Your task to perform on an android device: open sync settings in chrome Image 0: 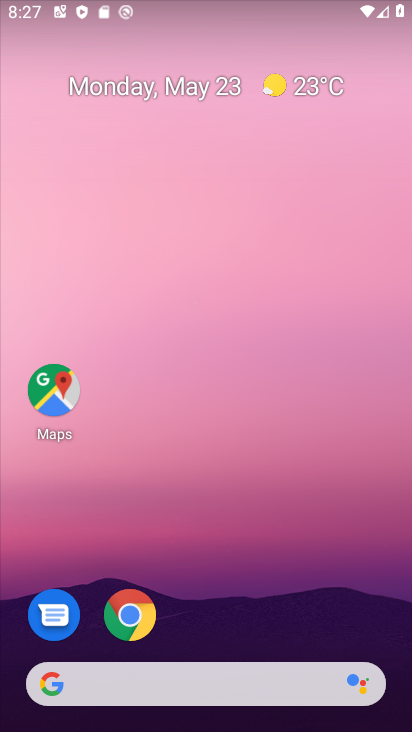
Step 0: click (130, 613)
Your task to perform on an android device: open sync settings in chrome Image 1: 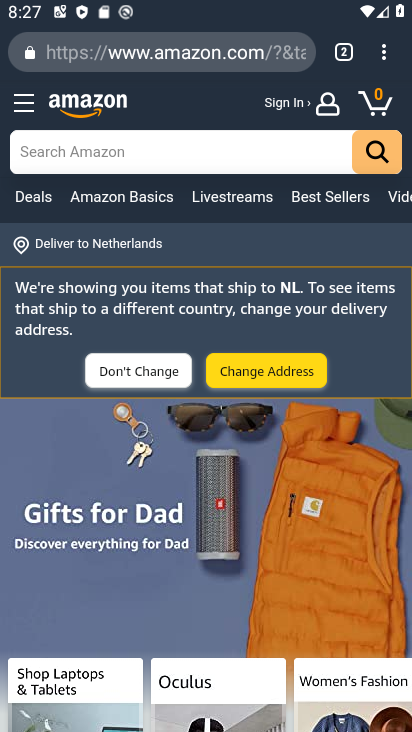
Step 1: click (385, 52)
Your task to perform on an android device: open sync settings in chrome Image 2: 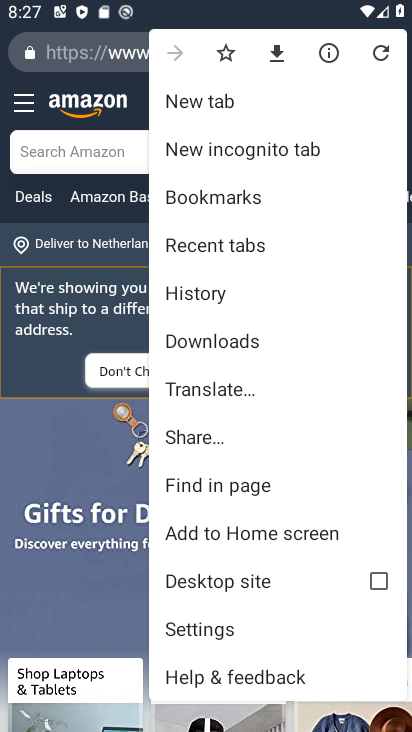
Step 2: click (206, 635)
Your task to perform on an android device: open sync settings in chrome Image 3: 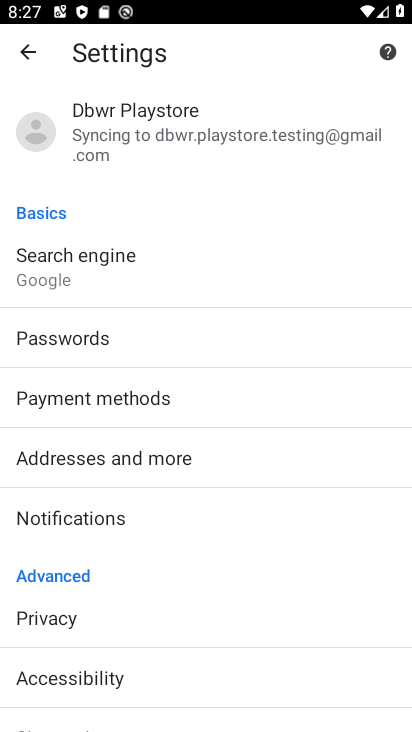
Step 3: drag from (154, 591) to (207, 470)
Your task to perform on an android device: open sync settings in chrome Image 4: 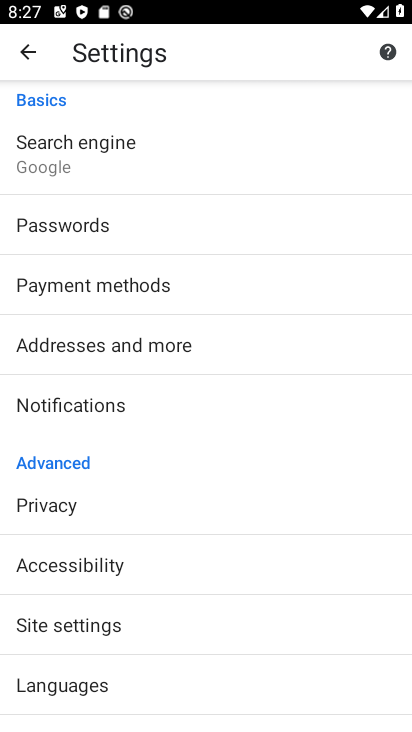
Step 4: drag from (119, 599) to (172, 519)
Your task to perform on an android device: open sync settings in chrome Image 5: 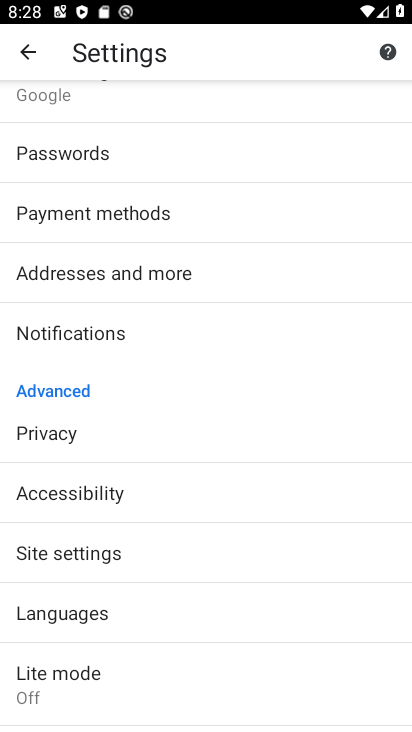
Step 5: click (98, 553)
Your task to perform on an android device: open sync settings in chrome Image 6: 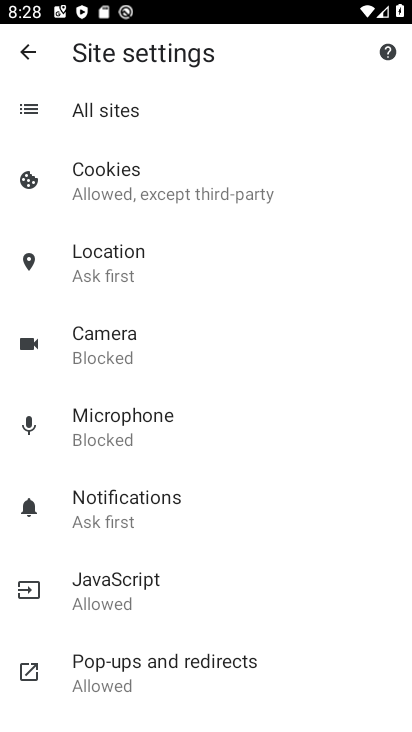
Step 6: drag from (164, 613) to (210, 546)
Your task to perform on an android device: open sync settings in chrome Image 7: 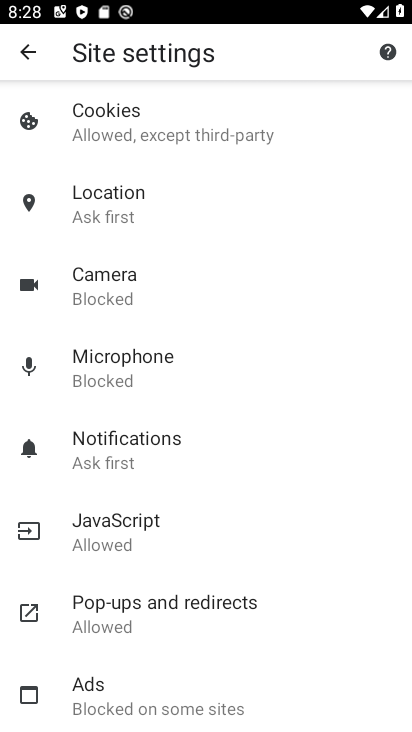
Step 7: drag from (150, 635) to (198, 551)
Your task to perform on an android device: open sync settings in chrome Image 8: 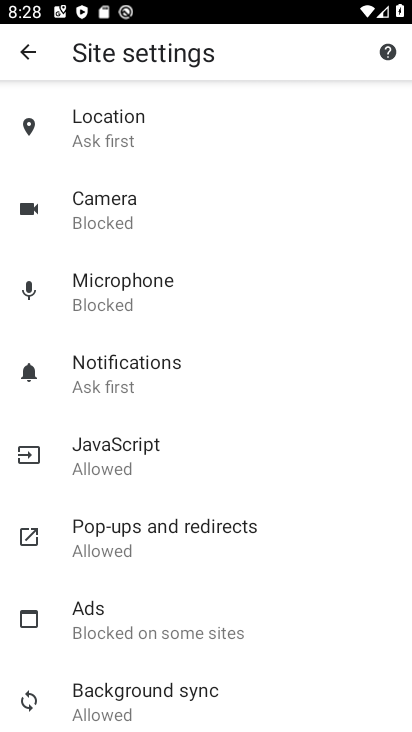
Step 8: drag from (141, 647) to (214, 544)
Your task to perform on an android device: open sync settings in chrome Image 9: 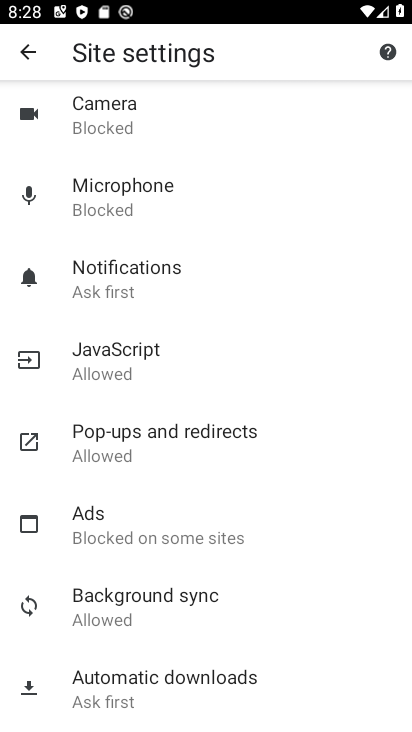
Step 9: click (211, 594)
Your task to perform on an android device: open sync settings in chrome Image 10: 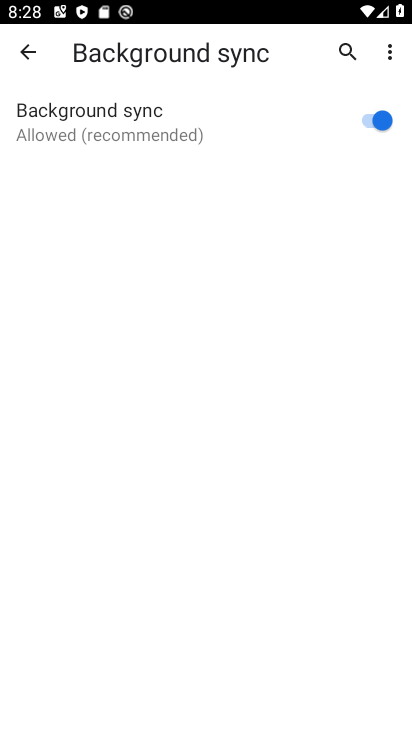
Step 10: task complete